Your task to perform on an android device: Open Wikipedia Image 0: 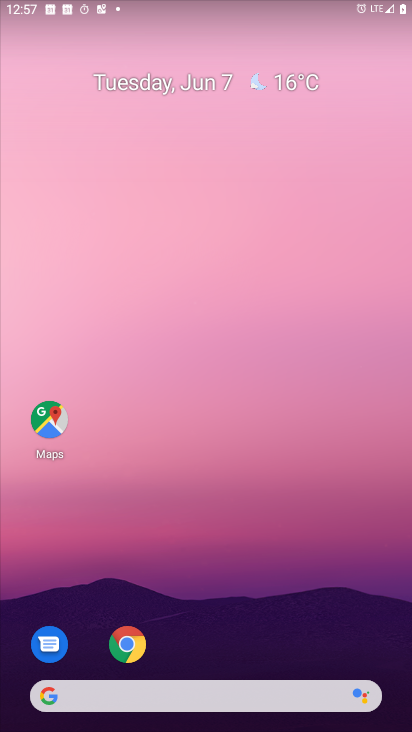
Step 0: click (140, 633)
Your task to perform on an android device: Open Wikipedia Image 1: 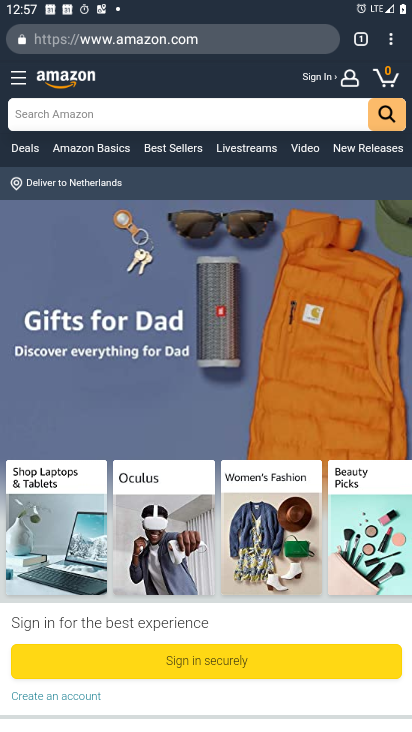
Step 1: click (369, 35)
Your task to perform on an android device: Open Wikipedia Image 2: 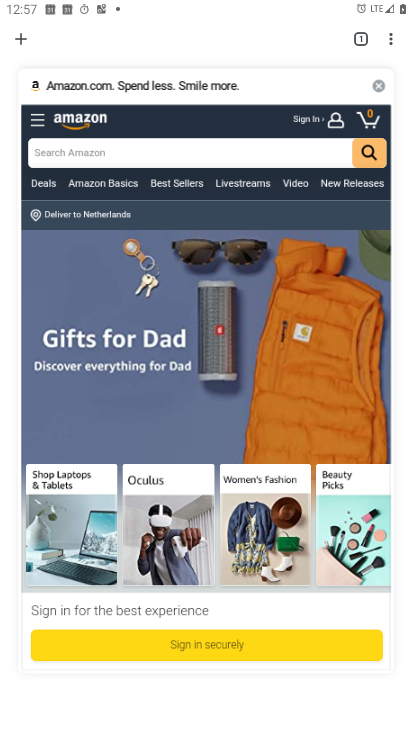
Step 2: click (380, 85)
Your task to perform on an android device: Open Wikipedia Image 3: 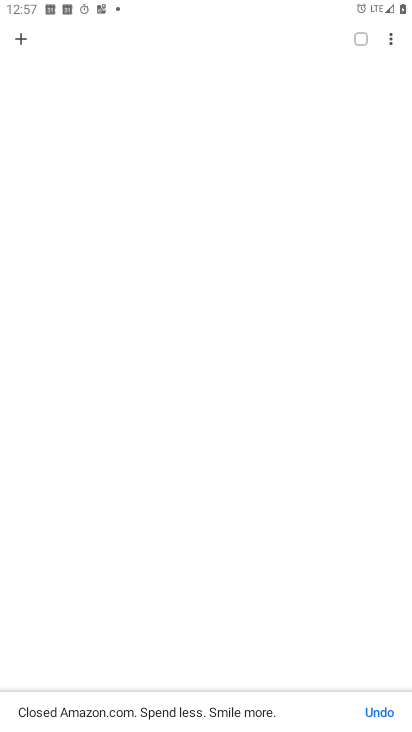
Step 3: click (17, 34)
Your task to perform on an android device: Open Wikipedia Image 4: 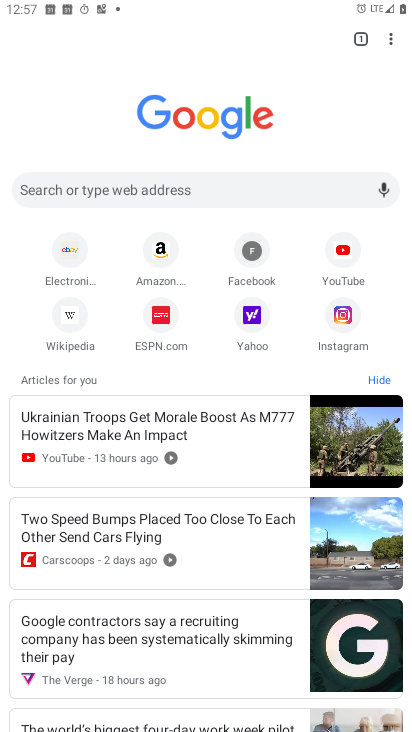
Step 4: click (72, 315)
Your task to perform on an android device: Open Wikipedia Image 5: 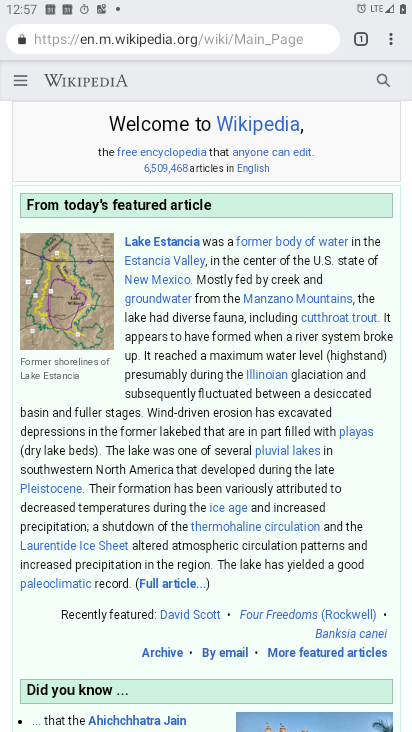
Step 5: task complete